Your task to perform on an android device: Open calendar and show me the second week of next month Image 0: 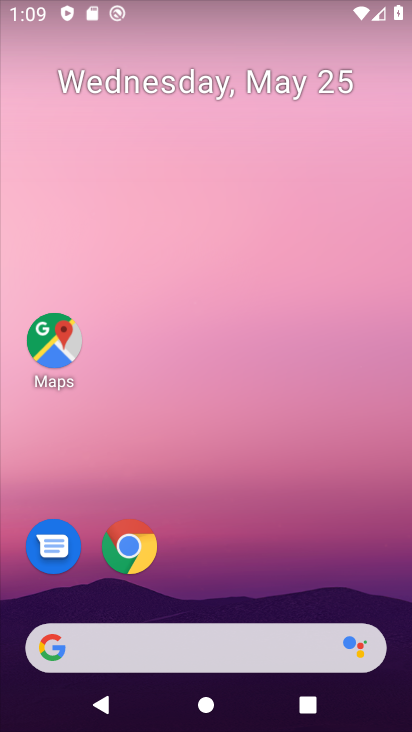
Step 0: drag from (375, 584) to (382, 114)
Your task to perform on an android device: Open calendar and show me the second week of next month Image 1: 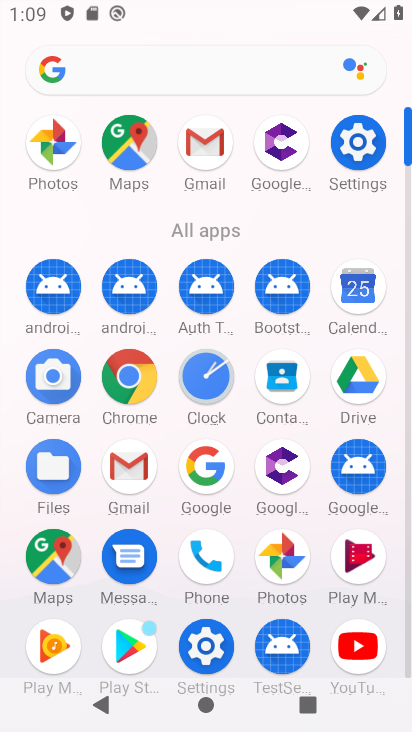
Step 1: click (350, 288)
Your task to perform on an android device: Open calendar and show me the second week of next month Image 2: 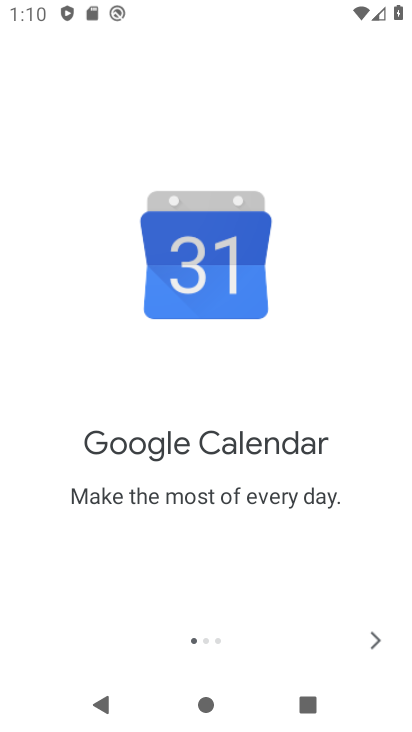
Step 2: click (367, 643)
Your task to perform on an android device: Open calendar and show me the second week of next month Image 3: 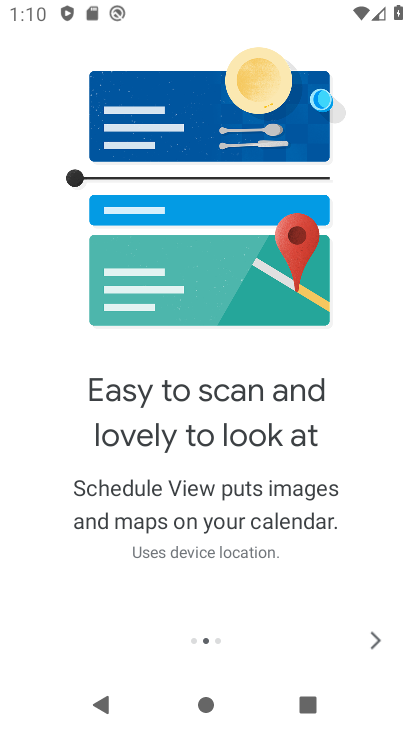
Step 3: click (367, 643)
Your task to perform on an android device: Open calendar and show me the second week of next month Image 4: 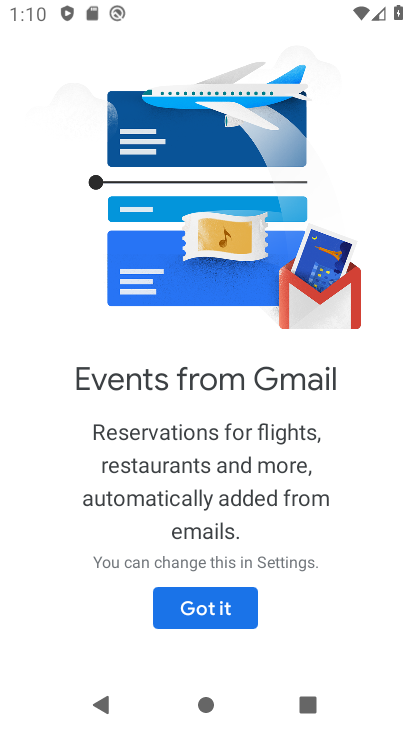
Step 4: click (217, 607)
Your task to perform on an android device: Open calendar and show me the second week of next month Image 5: 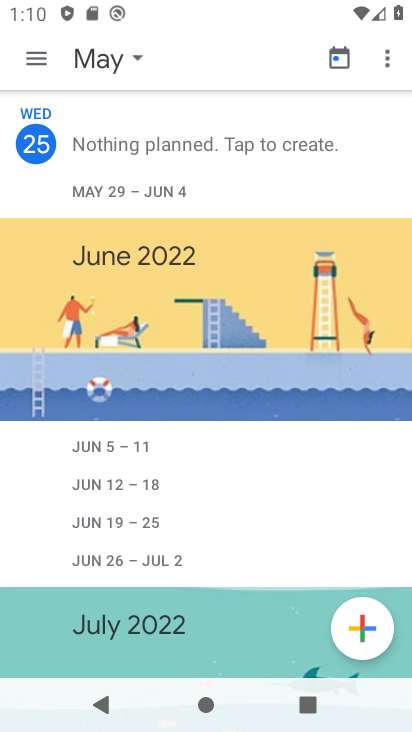
Step 5: click (141, 54)
Your task to perform on an android device: Open calendar and show me the second week of next month Image 6: 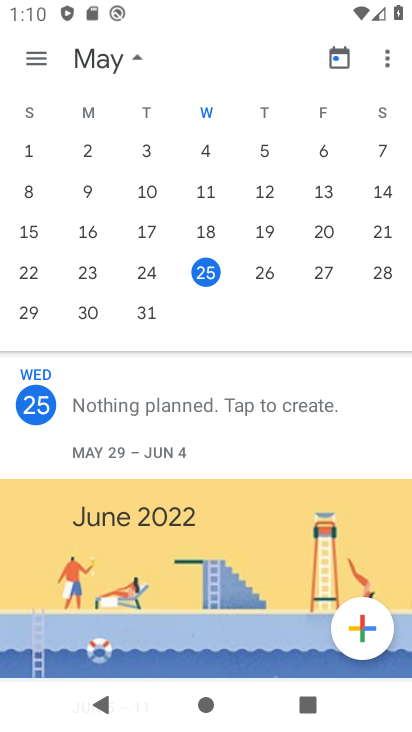
Step 6: drag from (208, 127) to (15, 120)
Your task to perform on an android device: Open calendar and show me the second week of next month Image 7: 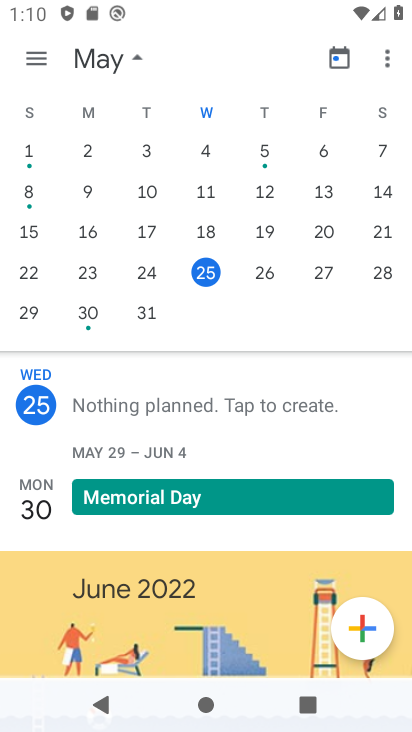
Step 7: drag from (383, 127) to (21, 113)
Your task to perform on an android device: Open calendar and show me the second week of next month Image 8: 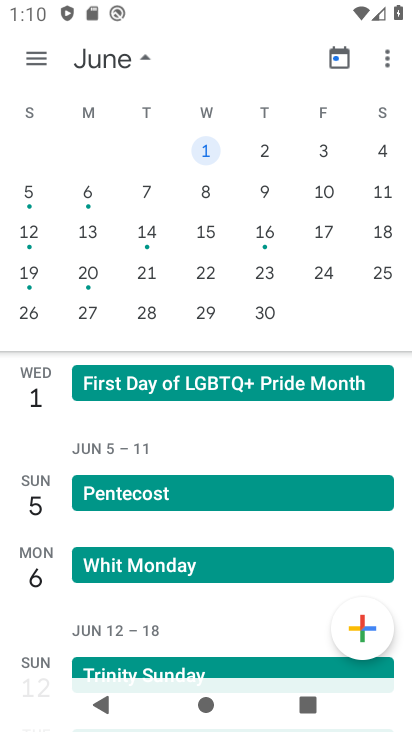
Step 8: click (86, 191)
Your task to perform on an android device: Open calendar and show me the second week of next month Image 9: 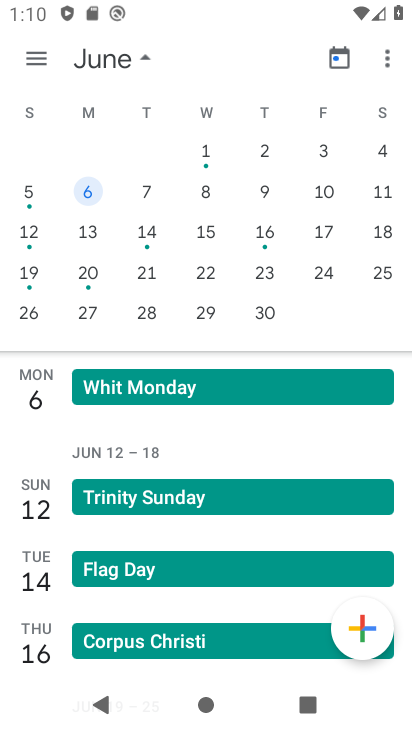
Step 9: task complete